Your task to perform on an android device: What is the recent news? Image 0: 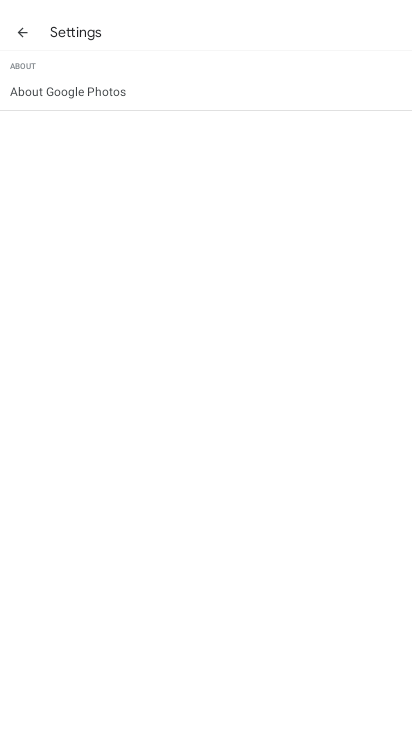
Step 0: press home button
Your task to perform on an android device: What is the recent news? Image 1: 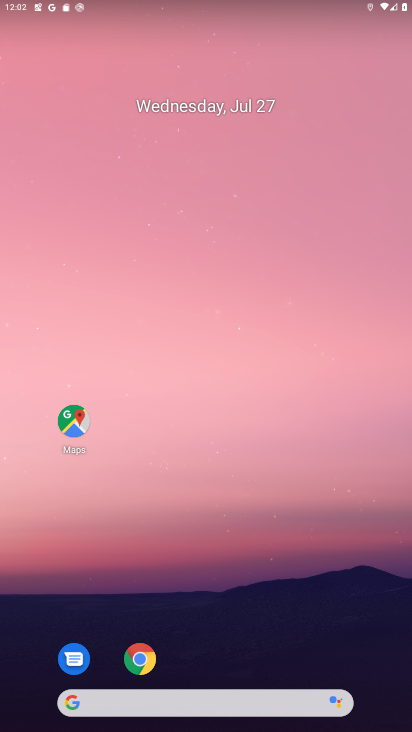
Step 1: drag from (154, 700) to (230, 17)
Your task to perform on an android device: What is the recent news? Image 2: 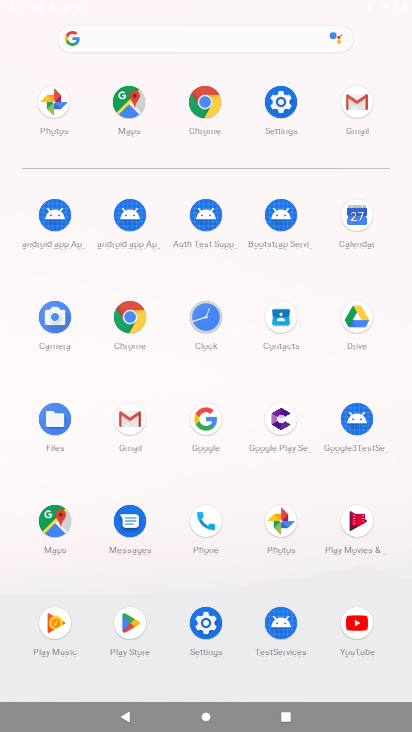
Step 2: click (138, 314)
Your task to perform on an android device: What is the recent news? Image 3: 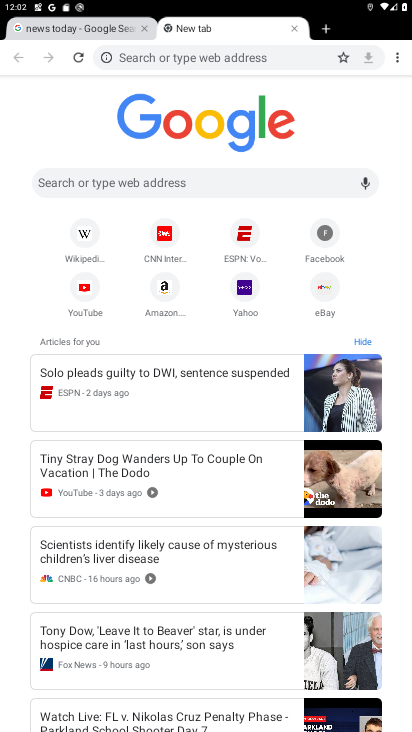
Step 3: click (218, 66)
Your task to perform on an android device: What is the recent news? Image 4: 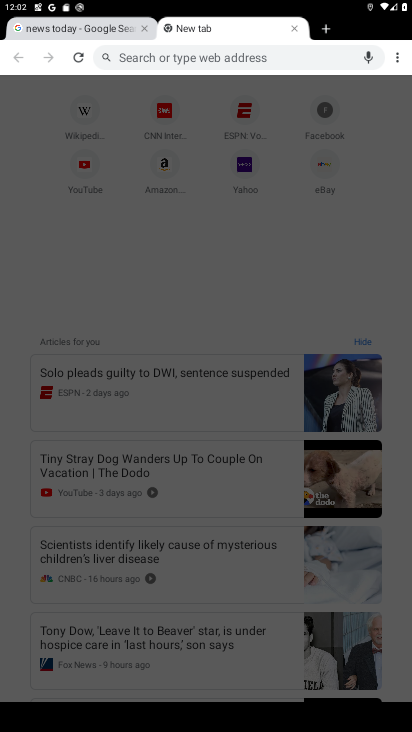
Step 4: type "recent news"
Your task to perform on an android device: What is the recent news? Image 5: 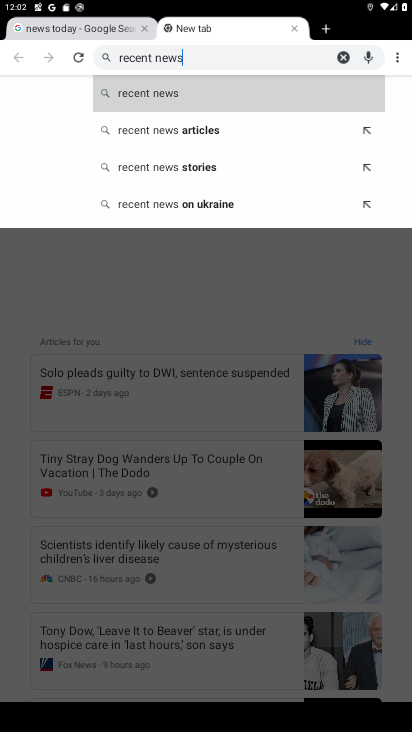
Step 5: click (149, 84)
Your task to perform on an android device: What is the recent news? Image 6: 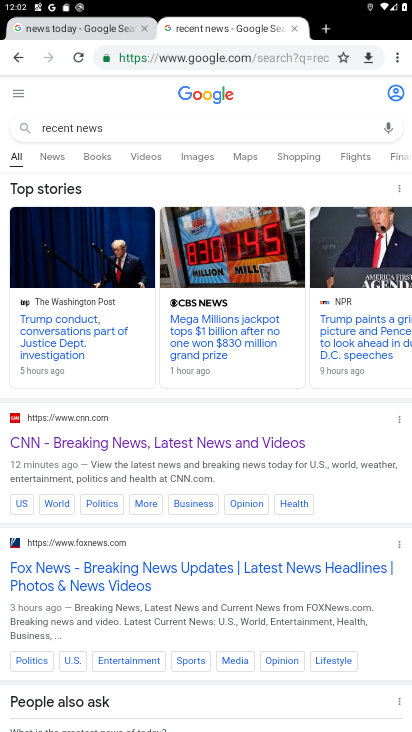
Step 6: task complete